Your task to perform on an android device: Open Google Maps Image 0: 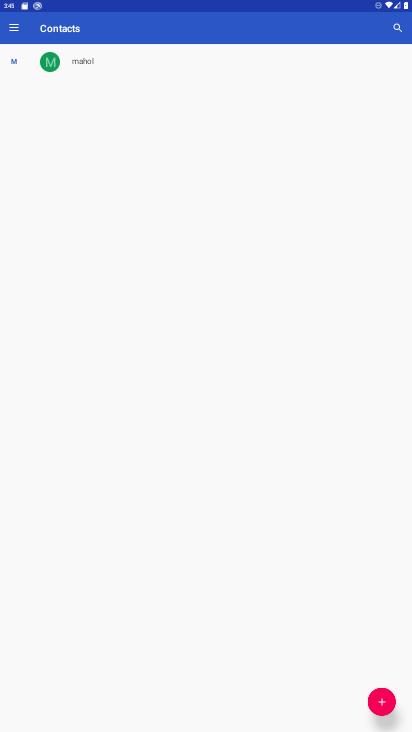
Step 0: press home button
Your task to perform on an android device: Open Google Maps Image 1: 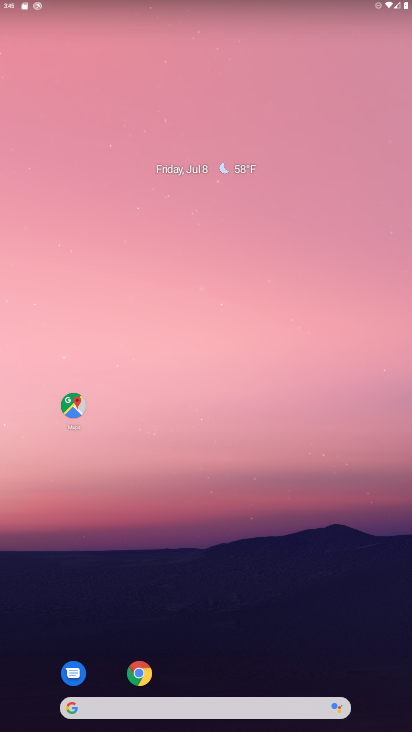
Step 1: click (67, 407)
Your task to perform on an android device: Open Google Maps Image 2: 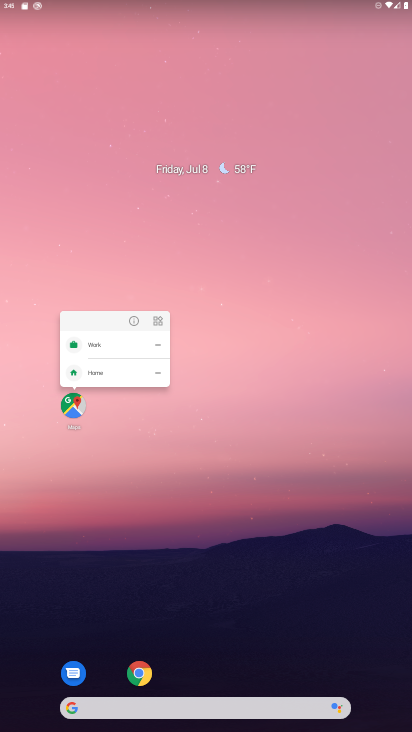
Step 2: click (75, 407)
Your task to perform on an android device: Open Google Maps Image 3: 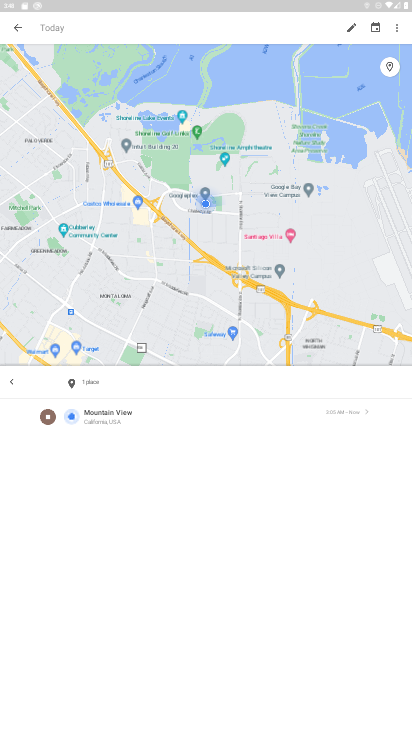
Step 3: click (27, 27)
Your task to perform on an android device: Open Google Maps Image 4: 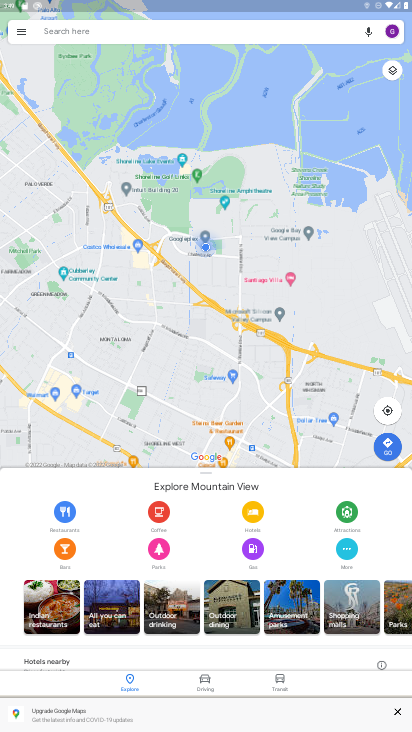
Step 4: task complete